Your task to perform on an android device: check out phone information Image 0: 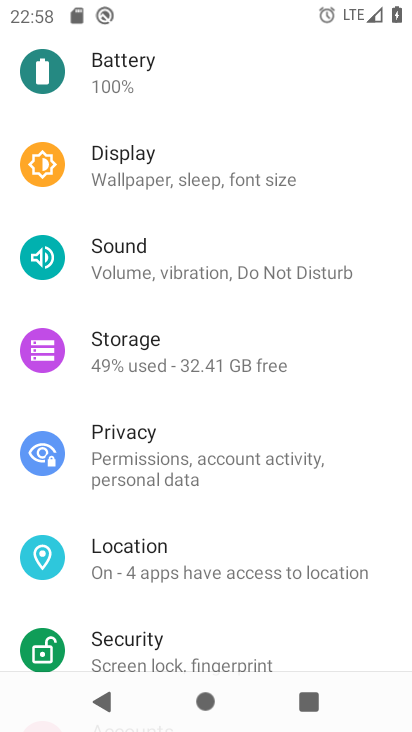
Step 0: press home button
Your task to perform on an android device: check out phone information Image 1: 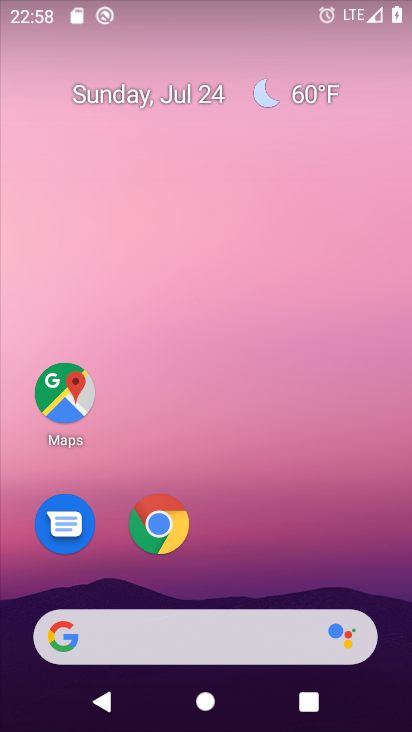
Step 1: drag from (267, 537) to (279, 8)
Your task to perform on an android device: check out phone information Image 2: 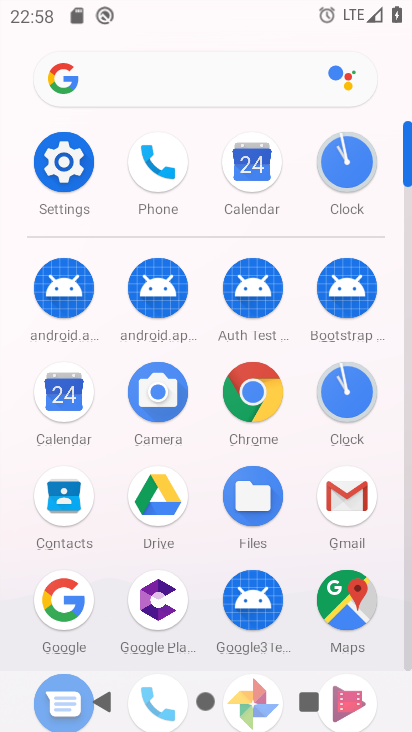
Step 2: click (155, 162)
Your task to perform on an android device: check out phone information Image 3: 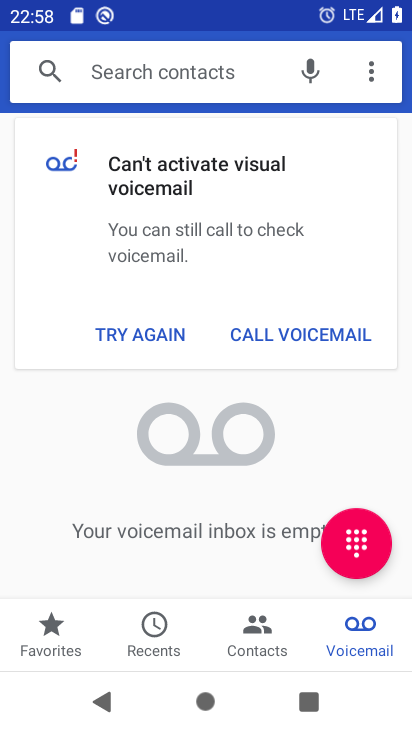
Step 3: click (371, 77)
Your task to perform on an android device: check out phone information Image 4: 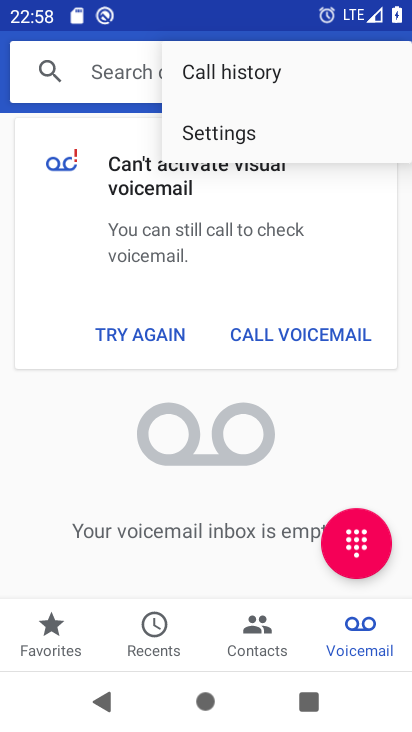
Step 4: click (261, 127)
Your task to perform on an android device: check out phone information Image 5: 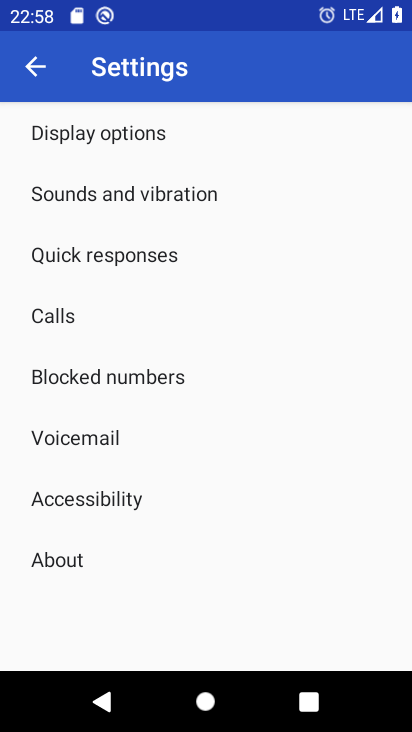
Step 5: drag from (157, 490) to (168, 165)
Your task to perform on an android device: check out phone information Image 6: 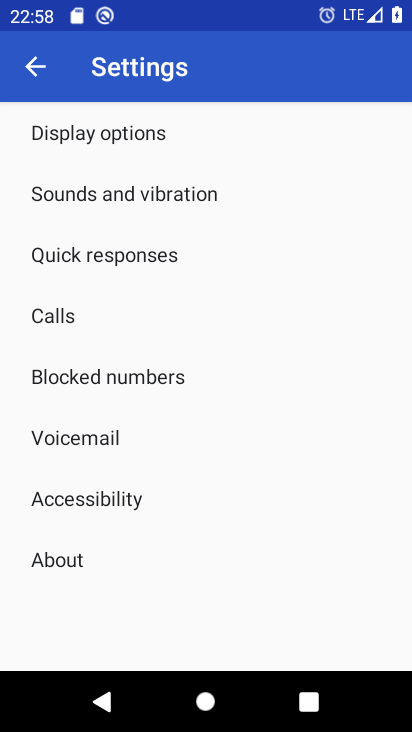
Step 6: click (46, 558)
Your task to perform on an android device: check out phone information Image 7: 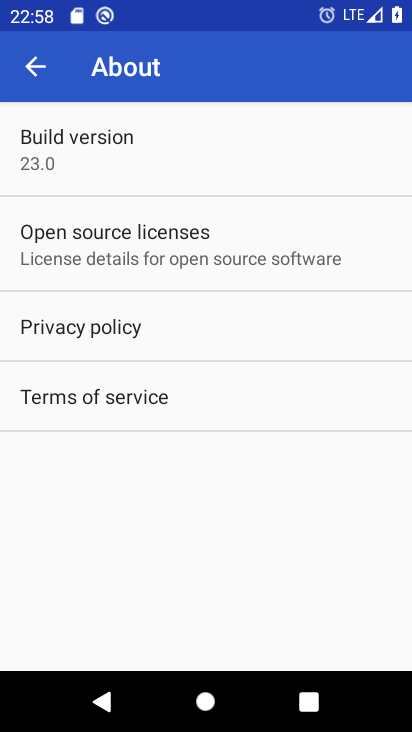
Step 7: task complete